Your task to perform on an android device: open app "ColorNote Notepad Notes" (install if not already installed) Image 0: 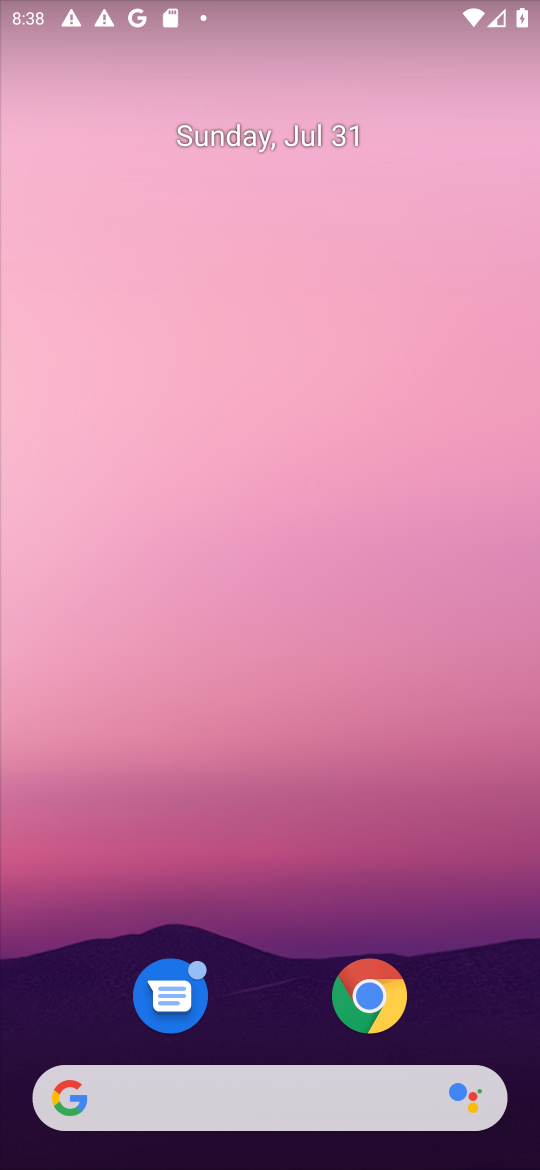
Step 0: drag from (489, 946) to (452, 107)
Your task to perform on an android device: open app "ColorNote Notepad Notes" (install if not already installed) Image 1: 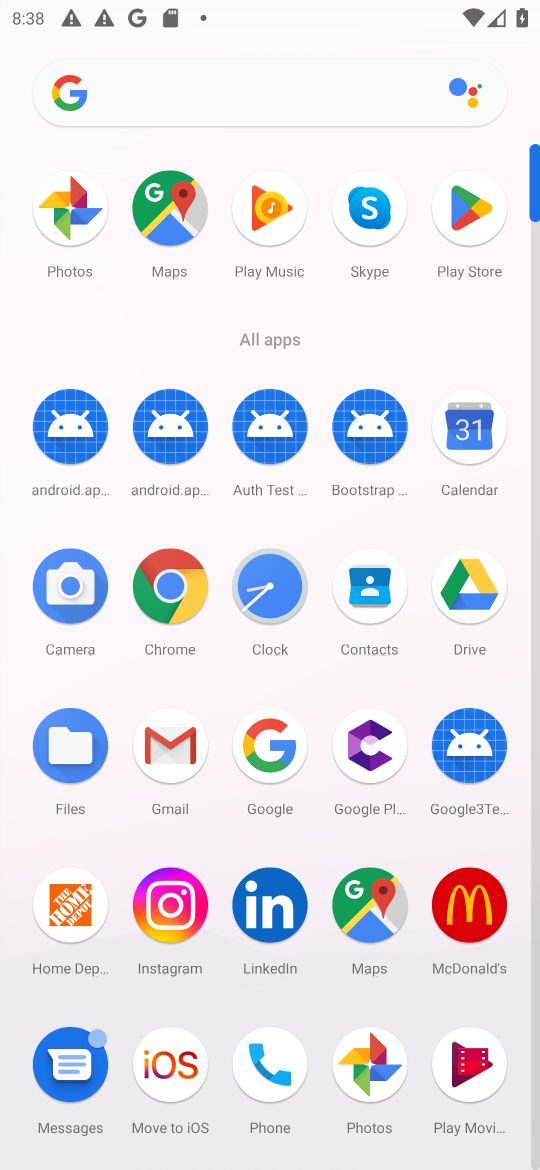
Step 1: click (468, 203)
Your task to perform on an android device: open app "ColorNote Notepad Notes" (install if not already installed) Image 2: 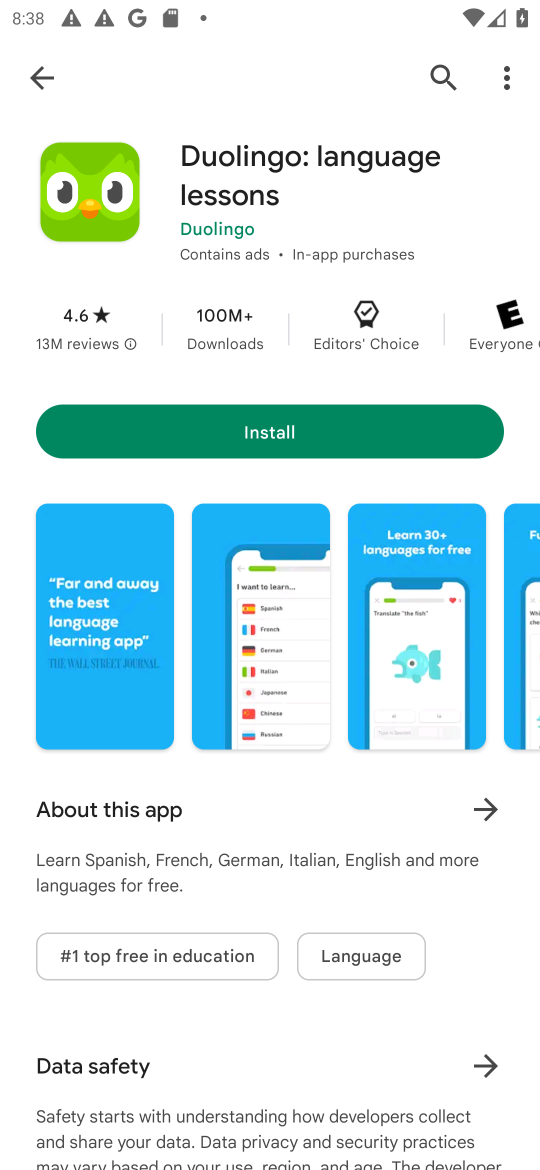
Step 2: press back button
Your task to perform on an android device: open app "ColorNote Notepad Notes" (install if not already installed) Image 3: 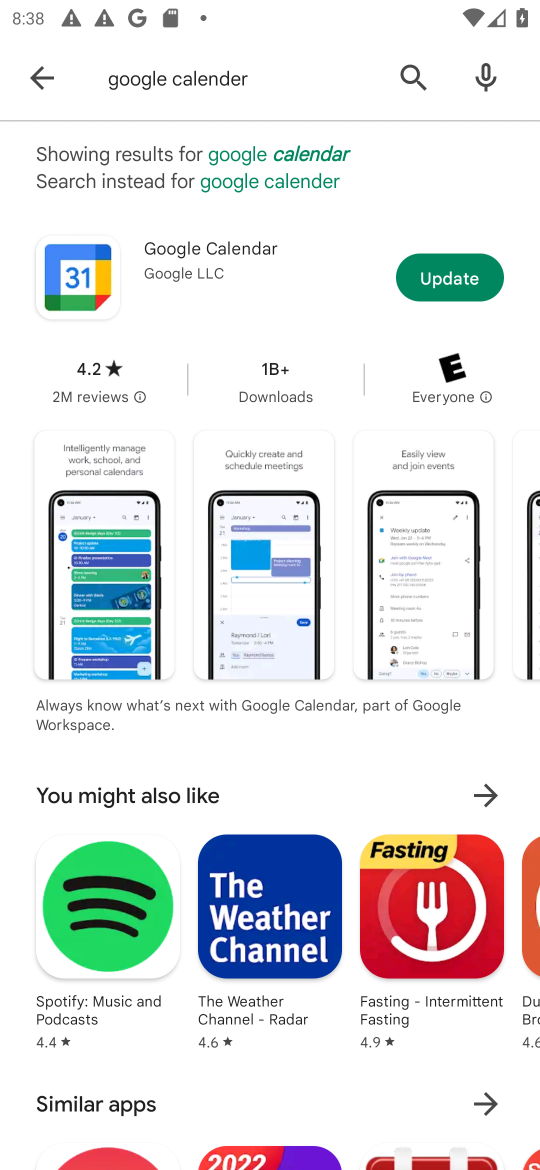
Step 3: click (280, 82)
Your task to perform on an android device: open app "ColorNote Notepad Notes" (install if not already installed) Image 4: 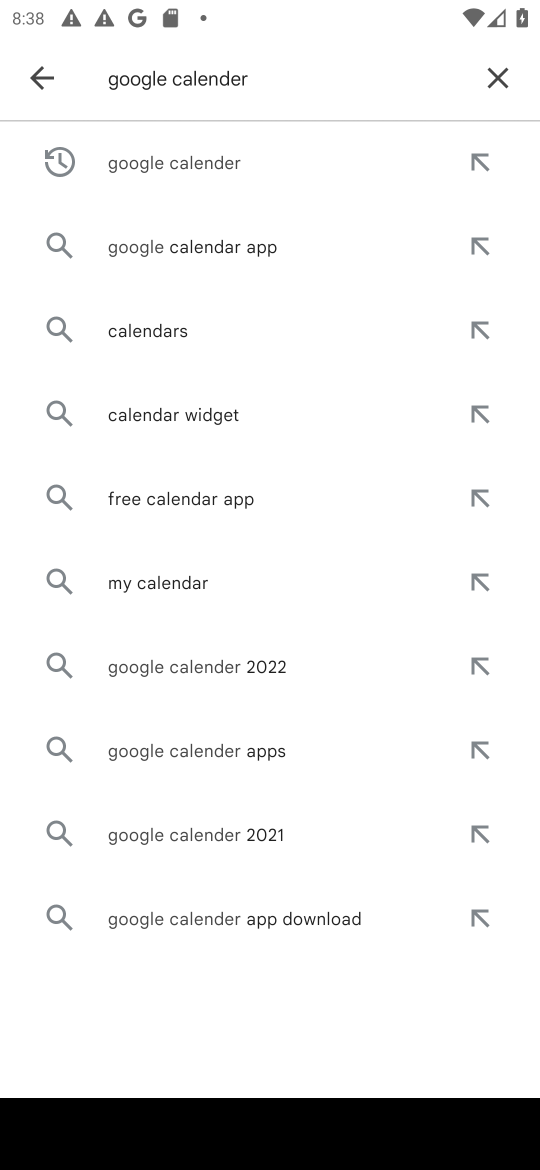
Step 4: click (489, 70)
Your task to perform on an android device: open app "ColorNote Notepad Notes" (install if not already installed) Image 5: 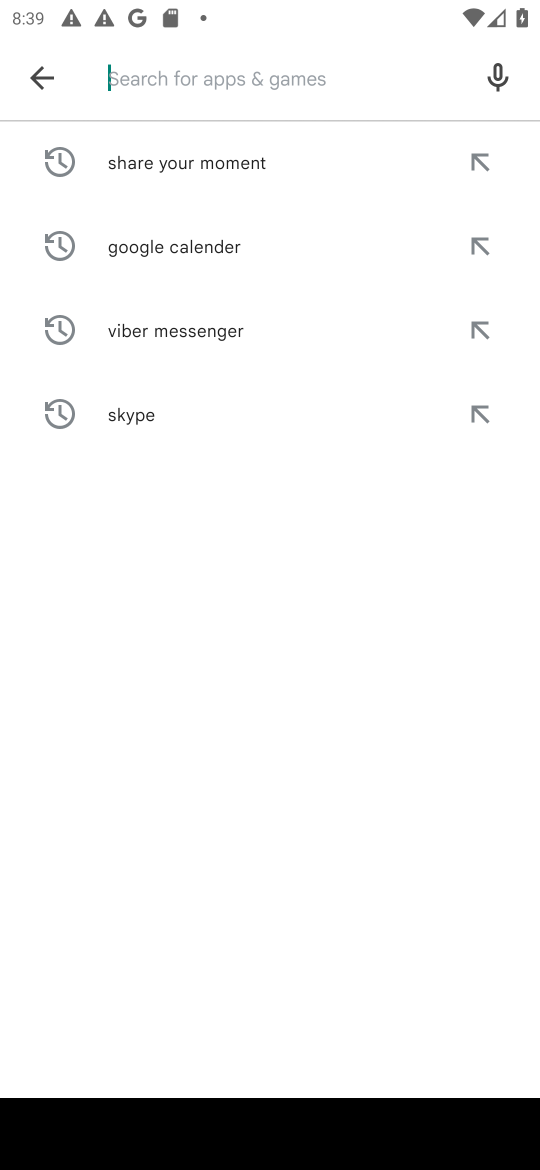
Step 5: type "color notepad notes"
Your task to perform on an android device: open app "ColorNote Notepad Notes" (install if not already installed) Image 6: 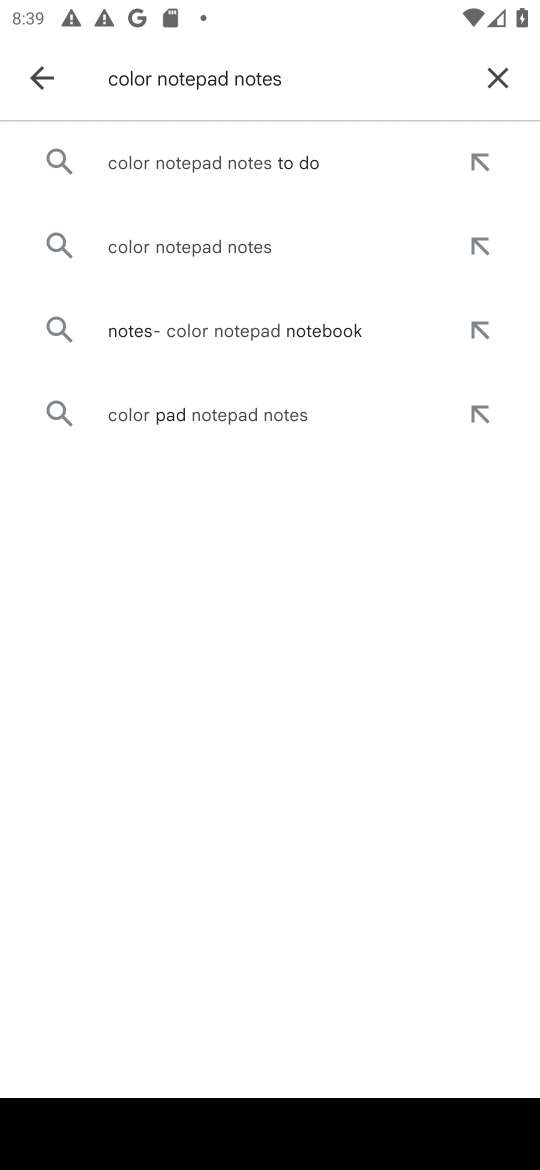
Step 6: click (222, 262)
Your task to perform on an android device: open app "ColorNote Notepad Notes" (install if not already installed) Image 7: 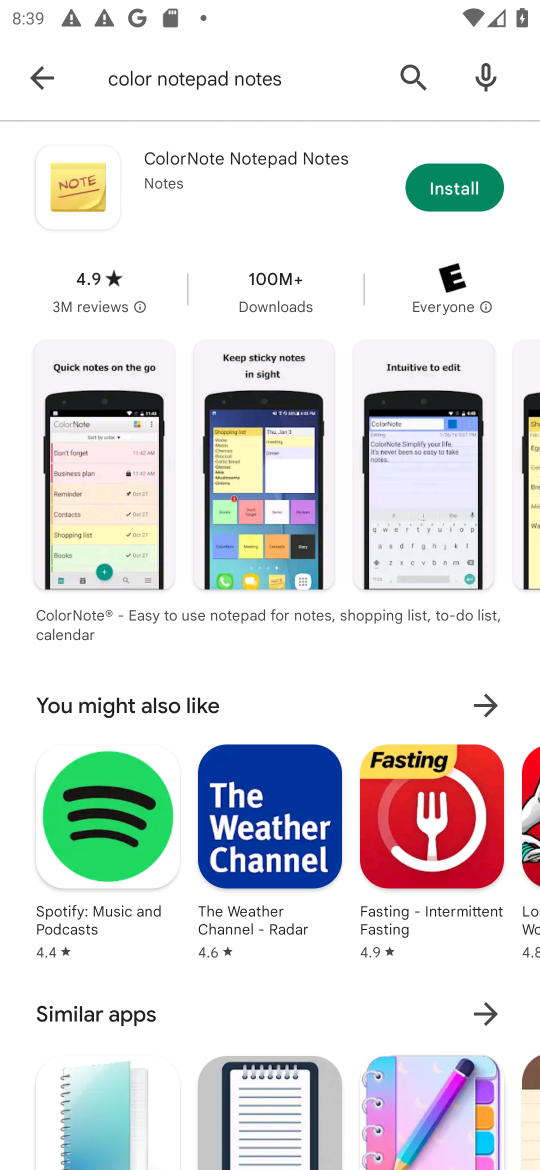
Step 7: click (434, 194)
Your task to perform on an android device: open app "ColorNote Notepad Notes" (install if not already installed) Image 8: 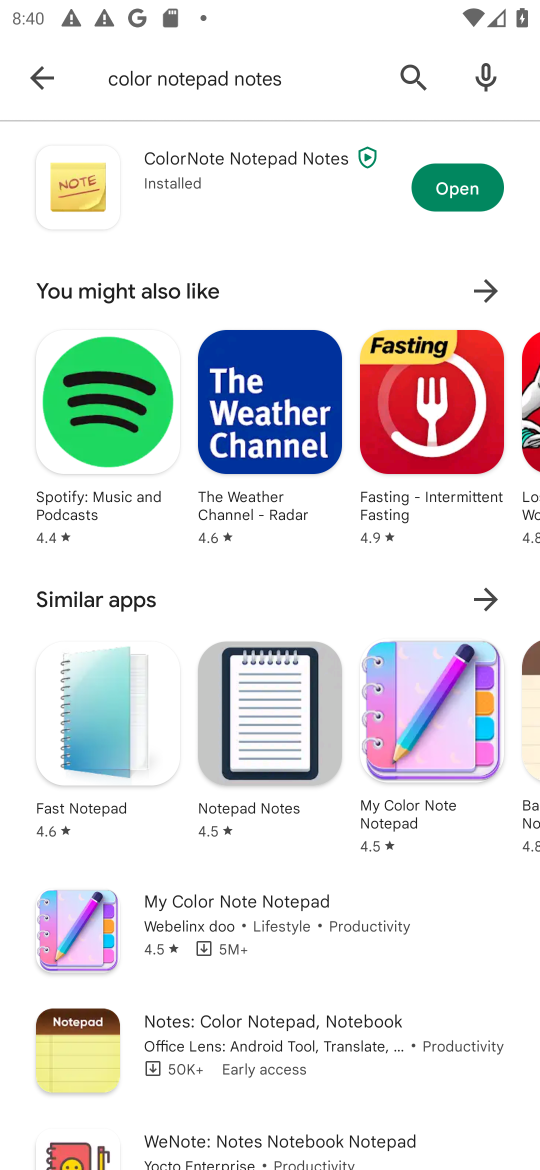
Step 8: click (463, 184)
Your task to perform on an android device: open app "ColorNote Notepad Notes" (install if not already installed) Image 9: 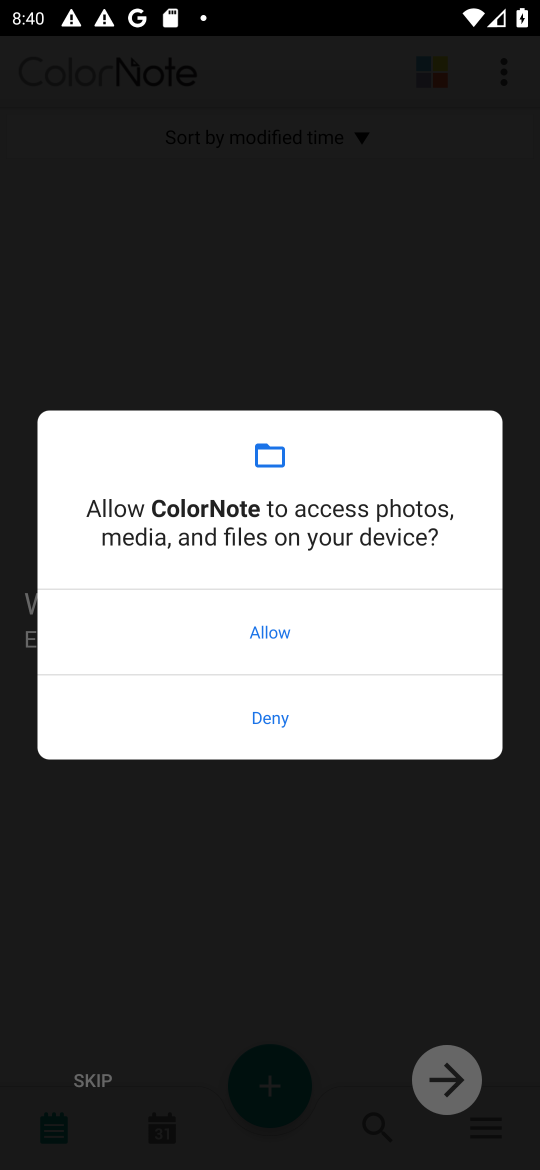
Step 9: task complete